Your task to perform on an android device: turn vacation reply on in the gmail app Image 0: 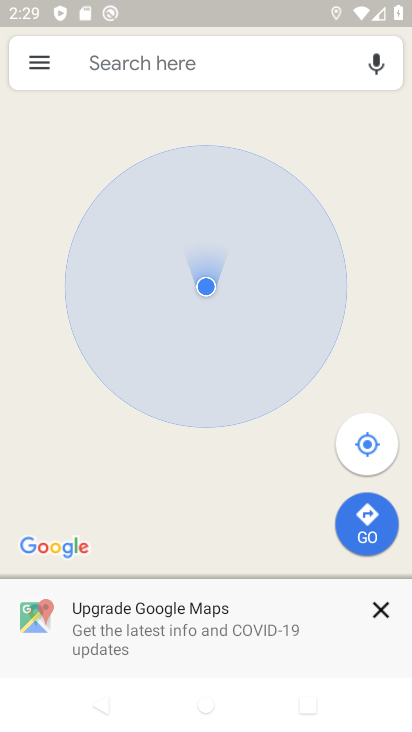
Step 0: press home button
Your task to perform on an android device: turn vacation reply on in the gmail app Image 1: 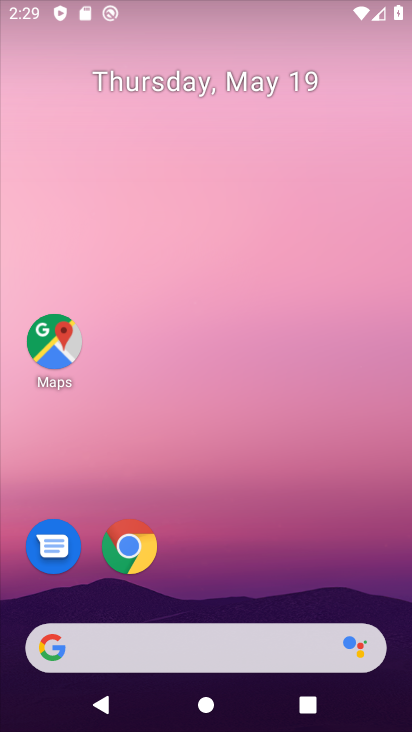
Step 1: drag from (176, 655) to (299, 270)
Your task to perform on an android device: turn vacation reply on in the gmail app Image 2: 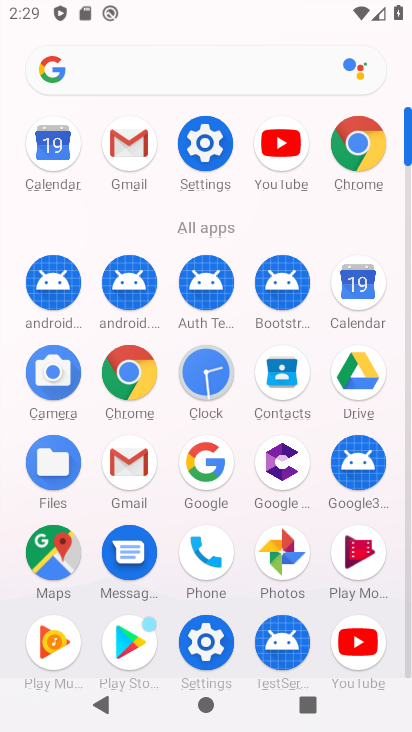
Step 2: click (121, 149)
Your task to perform on an android device: turn vacation reply on in the gmail app Image 3: 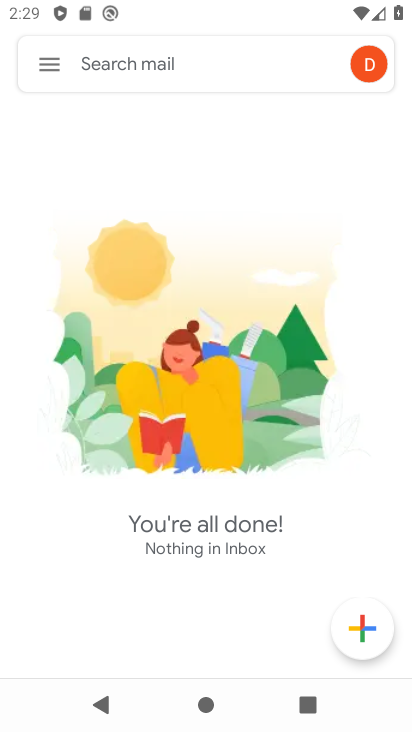
Step 3: click (47, 67)
Your task to perform on an android device: turn vacation reply on in the gmail app Image 4: 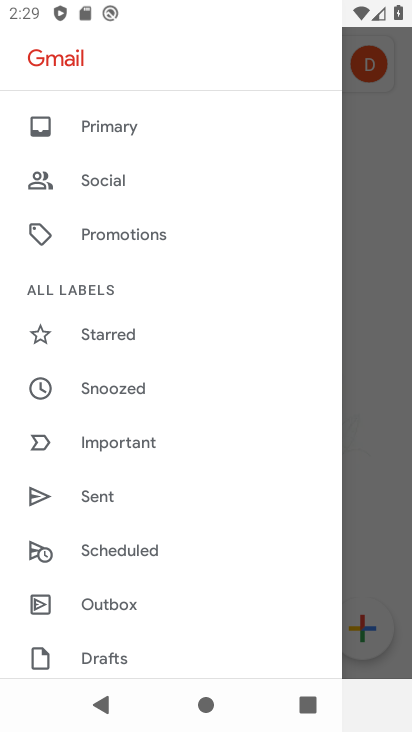
Step 4: drag from (196, 611) to (290, 179)
Your task to perform on an android device: turn vacation reply on in the gmail app Image 5: 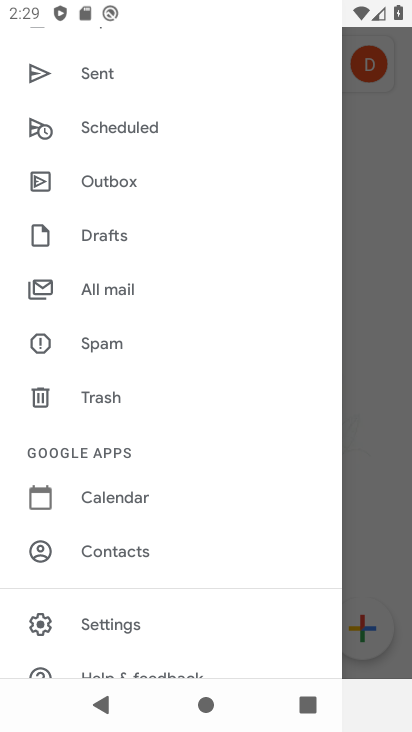
Step 5: drag from (202, 587) to (287, 214)
Your task to perform on an android device: turn vacation reply on in the gmail app Image 6: 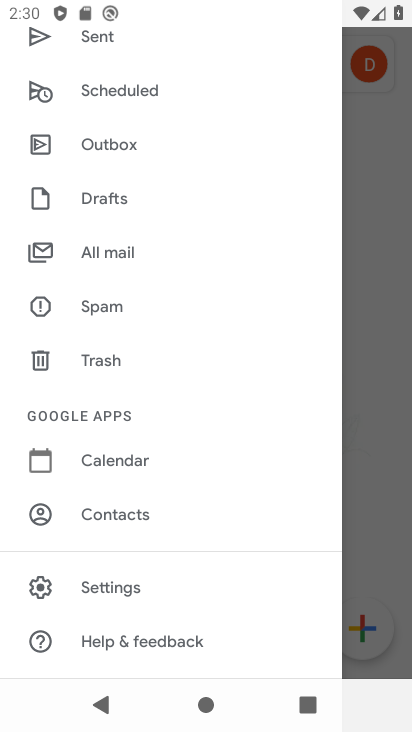
Step 6: click (125, 589)
Your task to perform on an android device: turn vacation reply on in the gmail app Image 7: 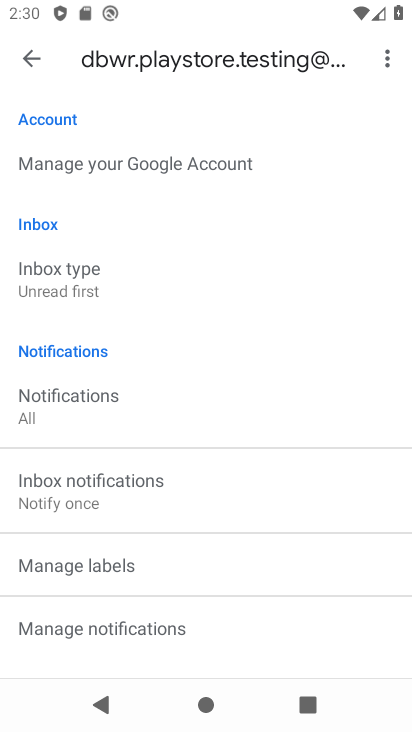
Step 7: drag from (199, 585) to (320, 226)
Your task to perform on an android device: turn vacation reply on in the gmail app Image 8: 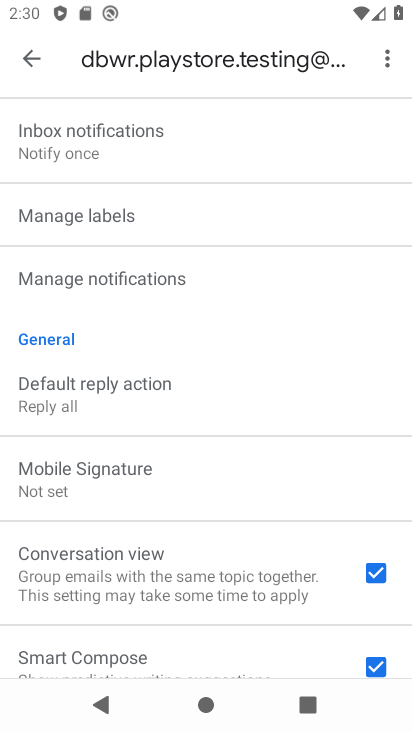
Step 8: drag from (221, 623) to (401, 74)
Your task to perform on an android device: turn vacation reply on in the gmail app Image 9: 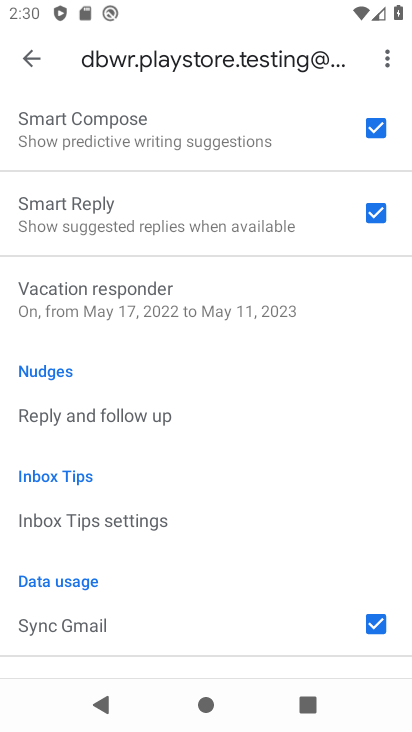
Step 9: drag from (199, 635) to (380, 39)
Your task to perform on an android device: turn vacation reply on in the gmail app Image 10: 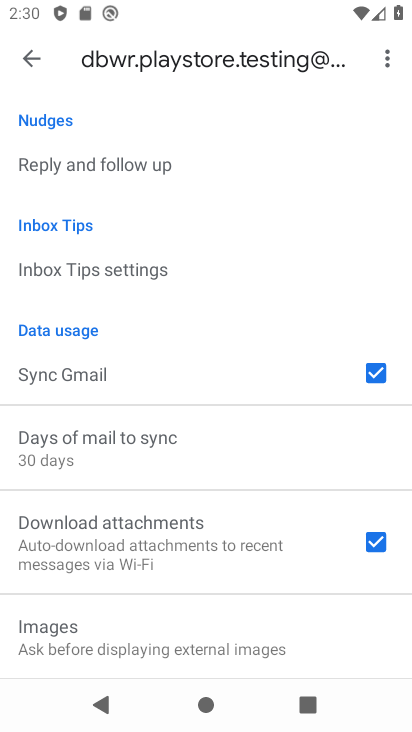
Step 10: drag from (241, 217) to (158, 633)
Your task to perform on an android device: turn vacation reply on in the gmail app Image 11: 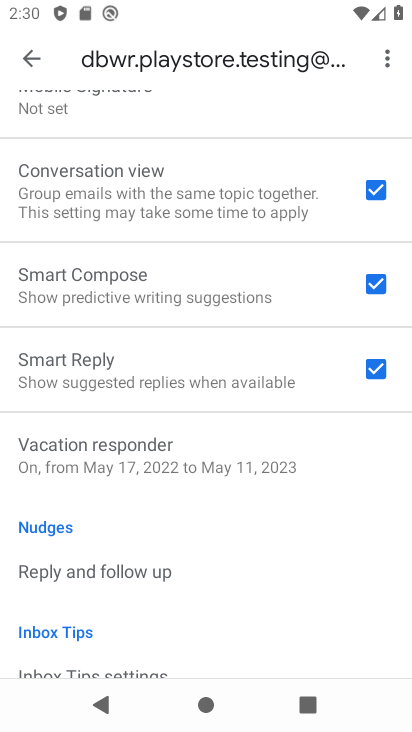
Step 11: click (136, 452)
Your task to perform on an android device: turn vacation reply on in the gmail app Image 12: 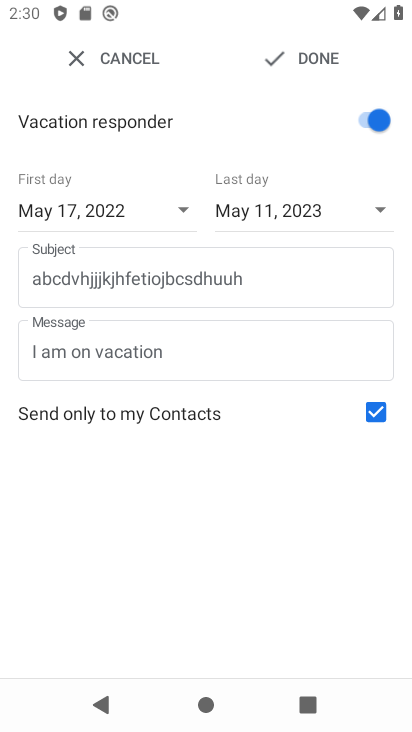
Step 12: task complete